Your task to perform on an android device: toggle sleep mode Image 0: 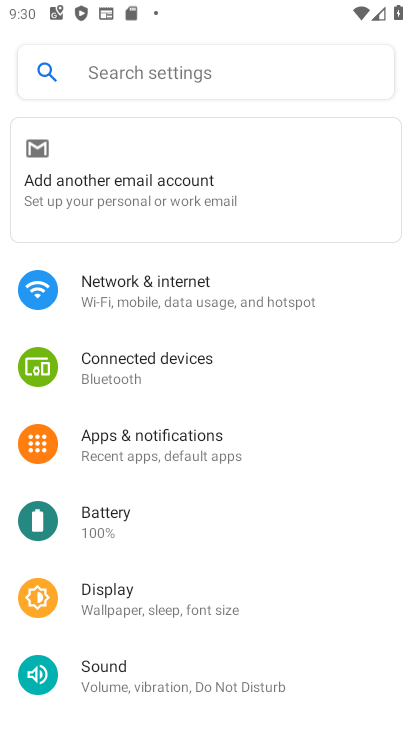
Step 0: click (179, 285)
Your task to perform on an android device: toggle sleep mode Image 1: 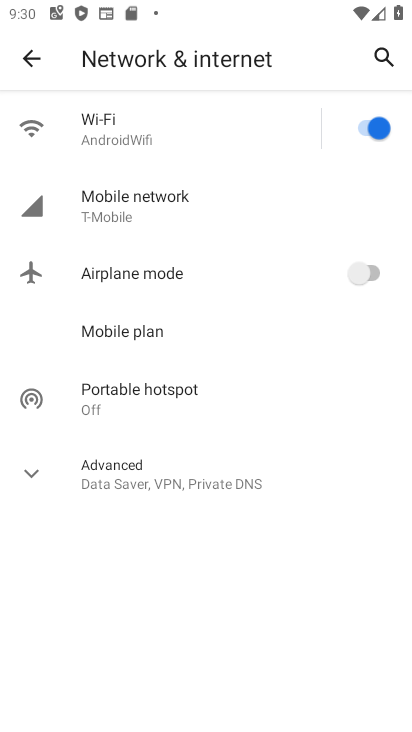
Step 1: click (39, 57)
Your task to perform on an android device: toggle sleep mode Image 2: 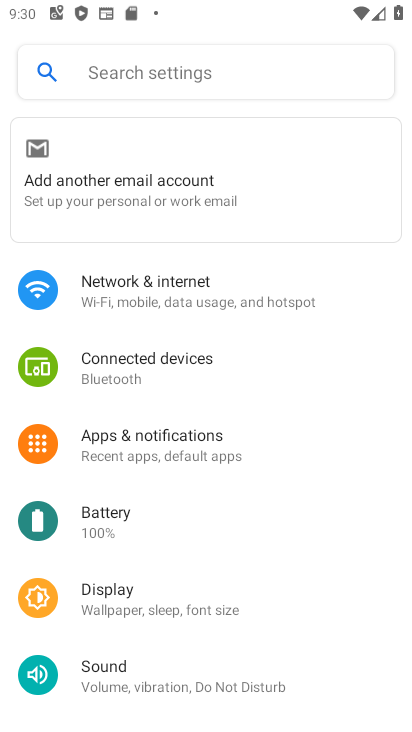
Step 2: click (209, 600)
Your task to perform on an android device: toggle sleep mode Image 3: 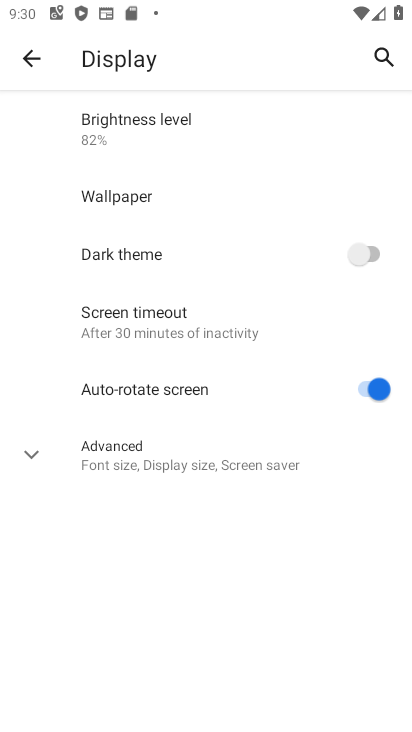
Step 3: click (33, 462)
Your task to perform on an android device: toggle sleep mode Image 4: 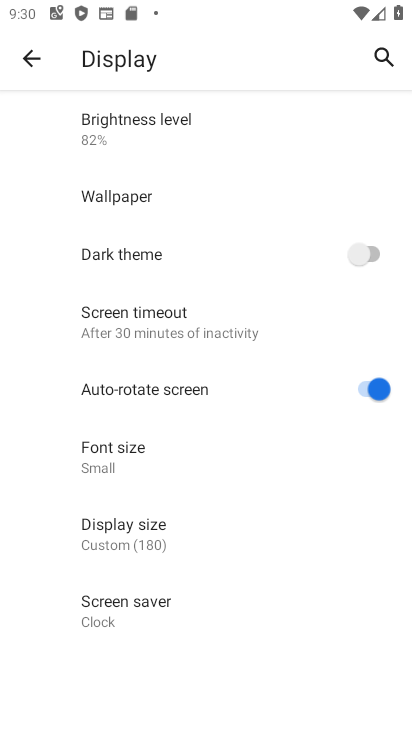
Step 4: task complete